Your task to perform on an android device: turn on improve location accuracy Image 0: 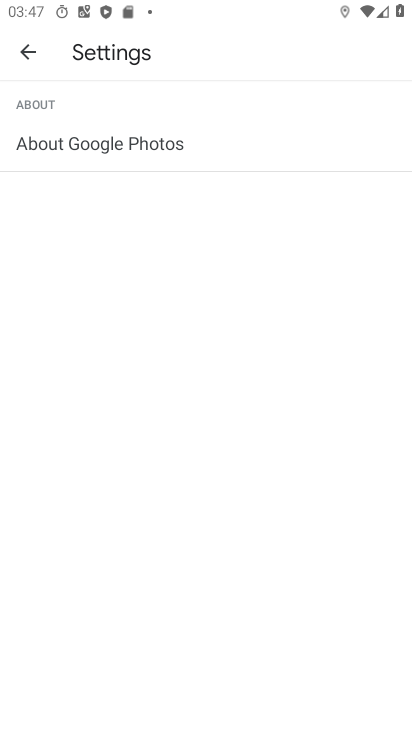
Step 0: click (28, 50)
Your task to perform on an android device: turn on improve location accuracy Image 1: 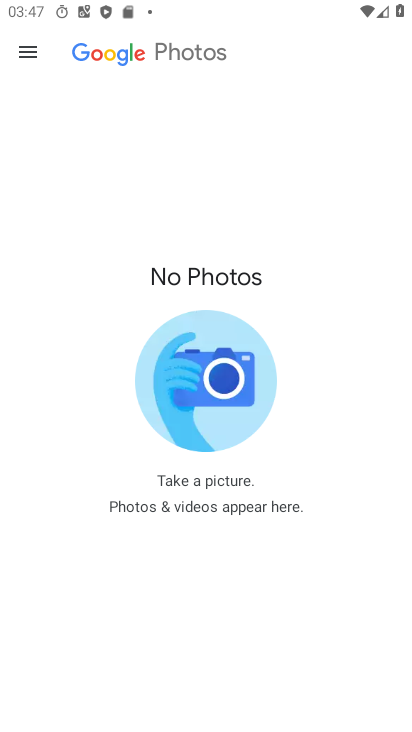
Step 1: task complete